Your task to perform on an android device: toggle airplane mode Image 0: 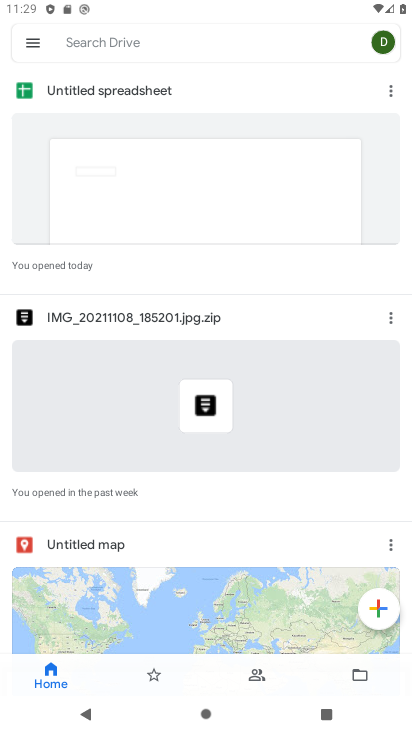
Step 0: press home button
Your task to perform on an android device: toggle airplane mode Image 1: 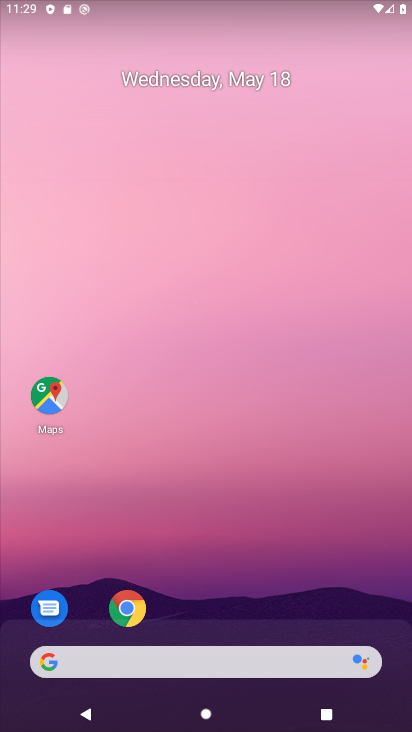
Step 1: drag from (374, 575) to (378, 139)
Your task to perform on an android device: toggle airplane mode Image 2: 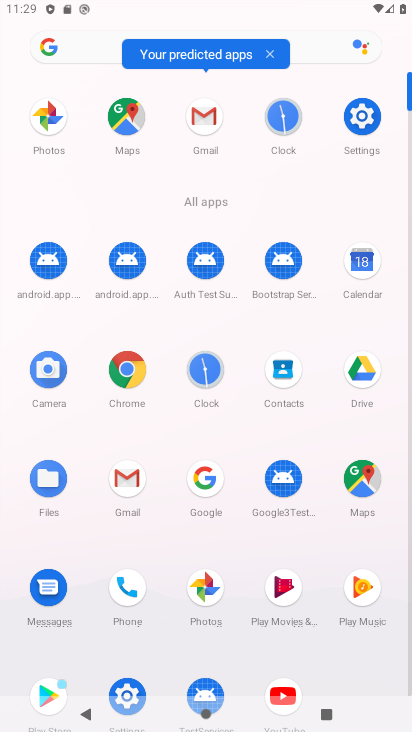
Step 2: click (368, 116)
Your task to perform on an android device: toggle airplane mode Image 3: 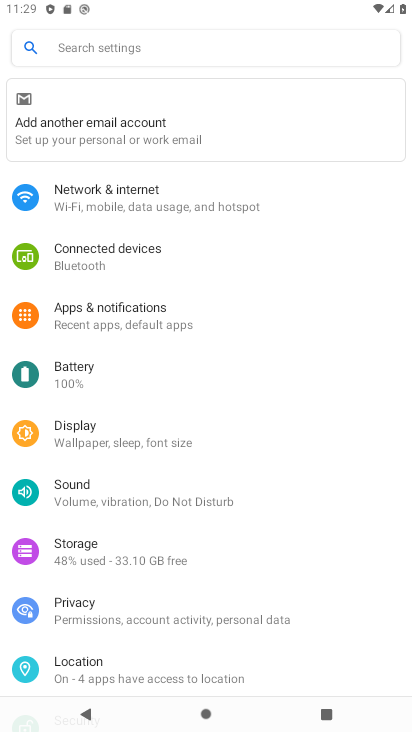
Step 3: click (121, 189)
Your task to perform on an android device: toggle airplane mode Image 4: 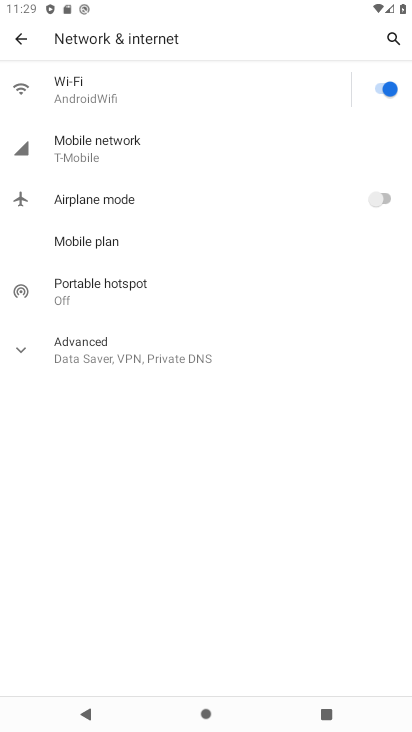
Step 4: click (168, 206)
Your task to perform on an android device: toggle airplane mode Image 5: 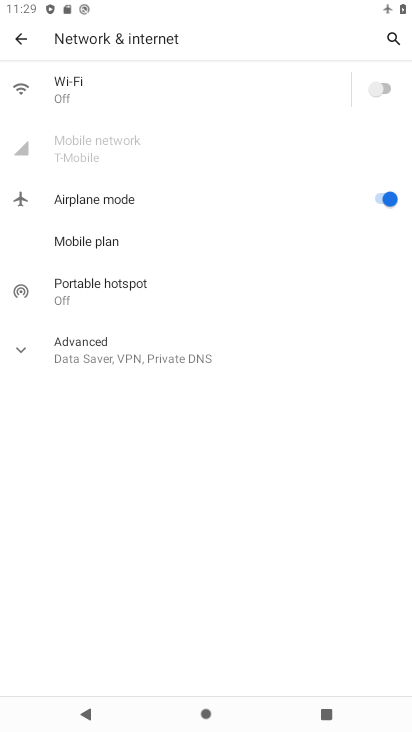
Step 5: task complete